Your task to perform on an android device: turn on translation in the chrome app Image 0: 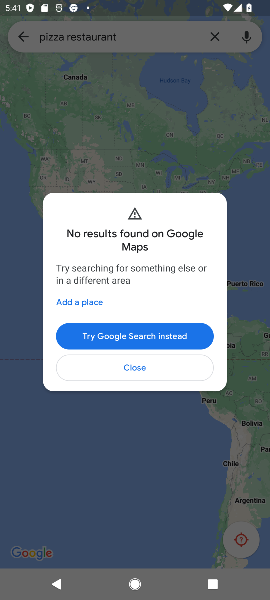
Step 0: press home button
Your task to perform on an android device: turn on translation in the chrome app Image 1: 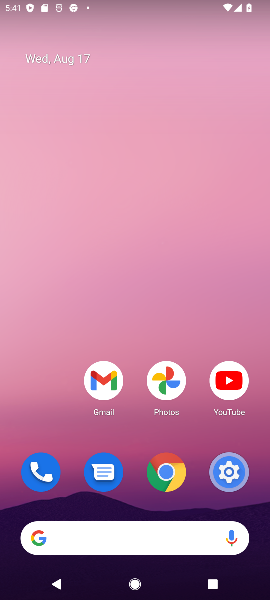
Step 1: click (160, 488)
Your task to perform on an android device: turn on translation in the chrome app Image 2: 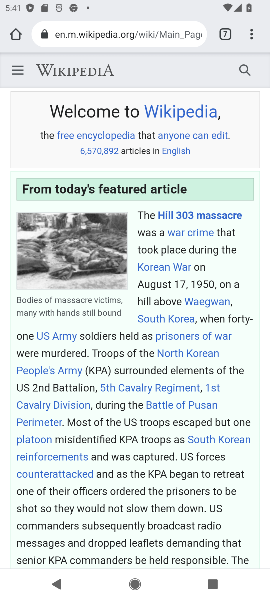
Step 2: click (251, 33)
Your task to perform on an android device: turn on translation in the chrome app Image 3: 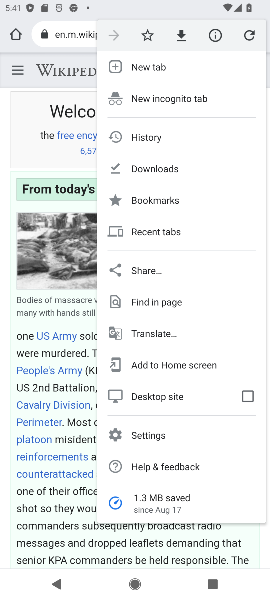
Step 3: click (148, 431)
Your task to perform on an android device: turn on translation in the chrome app Image 4: 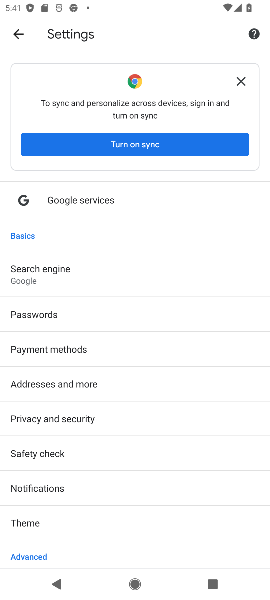
Step 4: drag from (87, 525) to (126, 260)
Your task to perform on an android device: turn on translation in the chrome app Image 5: 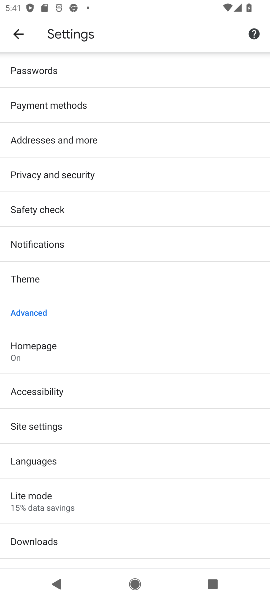
Step 5: click (100, 459)
Your task to perform on an android device: turn on translation in the chrome app Image 6: 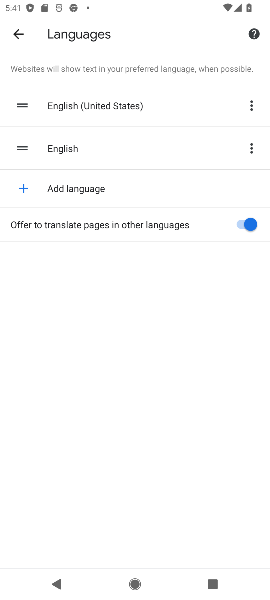
Step 6: task complete